Your task to perform on an android device: open sync settings in chrome Image 0: 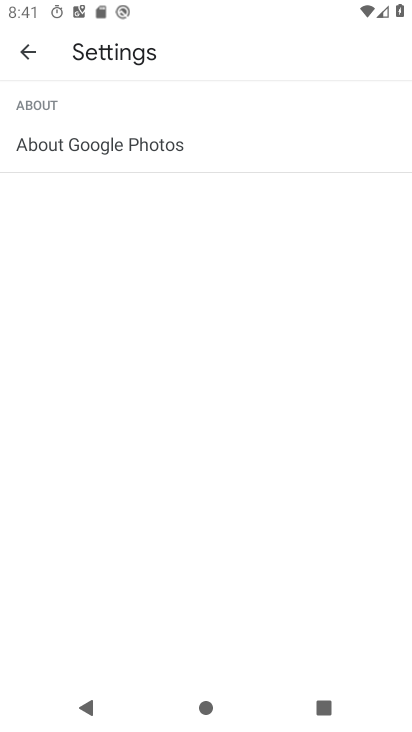
Step 0: press home button
Your task to perform on an android device: open sync settings in chrome Image 1: 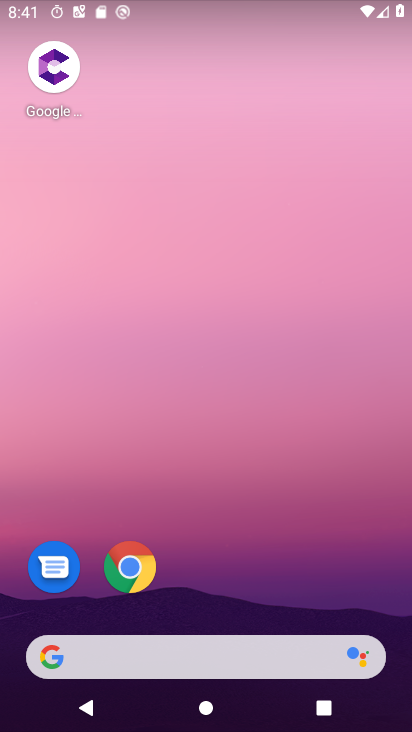
Step 1: click (156, 570)
Your task to perform on an android device: open sync settings in chrome Image 2: 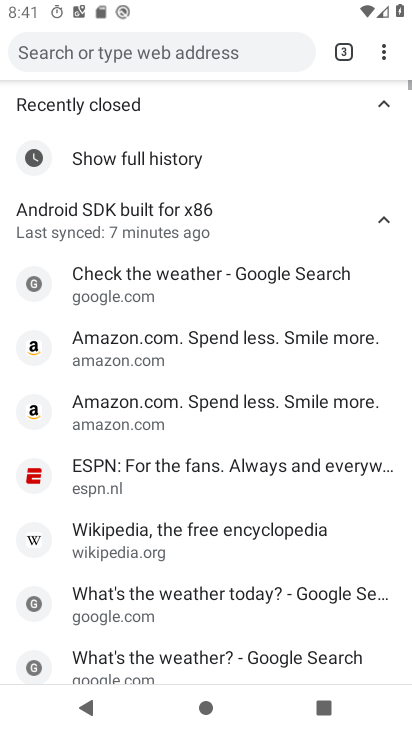
Step 2: click (384, 53)
Your task to perform on an android device: open sync settings in chrome Image 3: 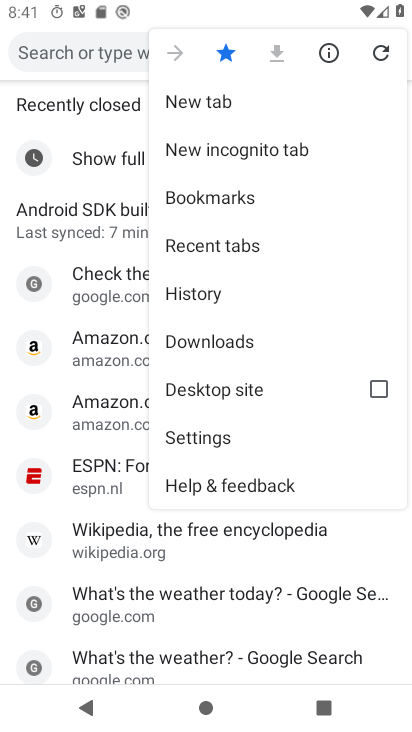
Step 3: click (251, 447)
Your task to perform on an android device: open sync settings in chrome Image 4: 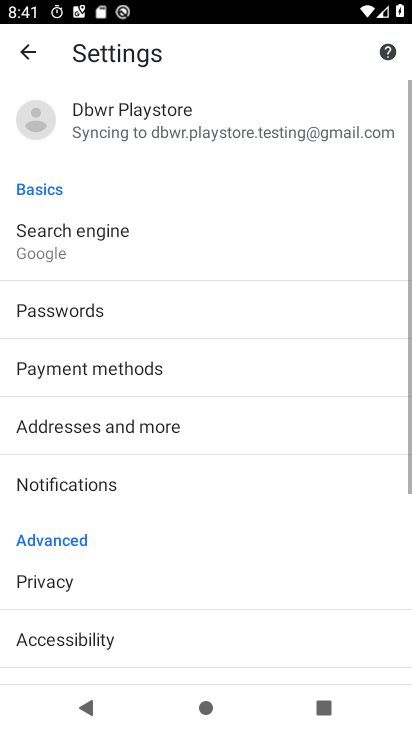
Step 4: drag from (251, 448) to (292, 143)
Your task to perform on an android device: open sync settings in chrome Image 5: 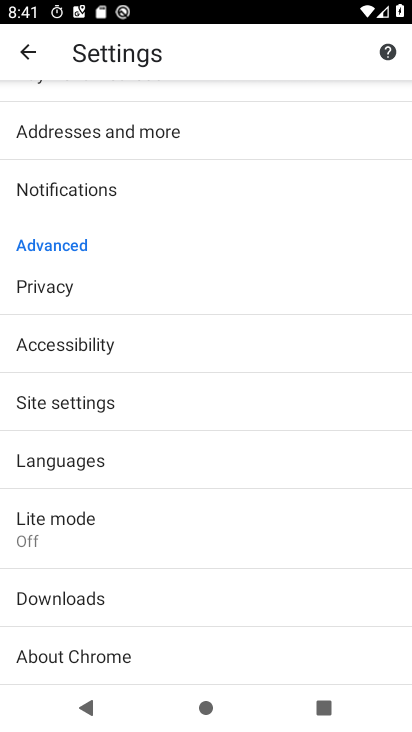
Step 5: click (171, 413)
Your task to perform on an android device: open sync settings in chrome Image 6: 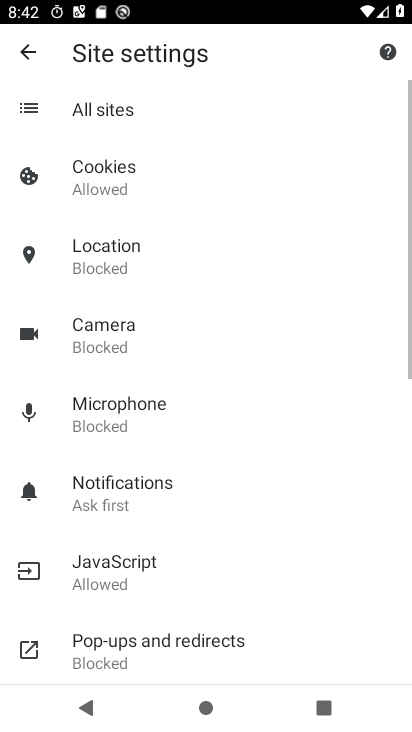
Step 6: drag from (207, 598) to (250, 196)
Your task to perform on an android device: open sync settings in chrome Image 7: 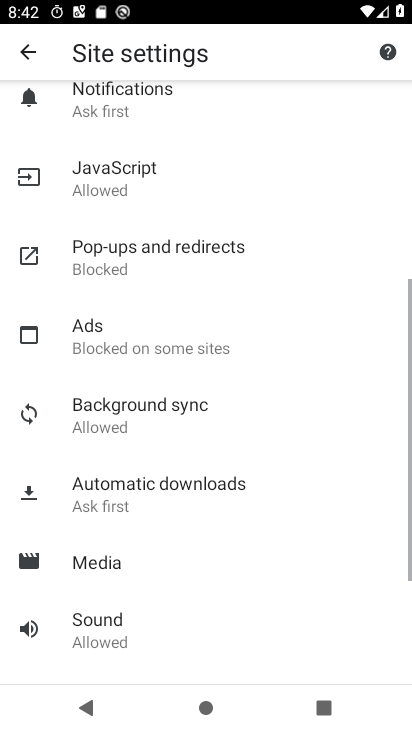
Step 7: click (201, 418)
Your task to perform on an android device: open sync settings in chrome Image 8: 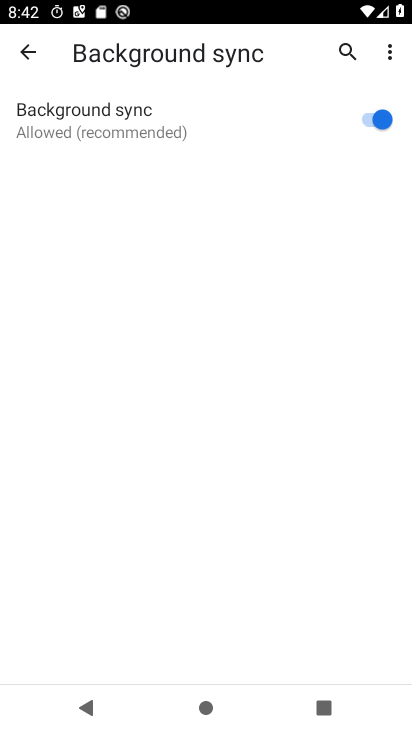
Step 8: task complete